Your task to perform on an android device: Go to notification settings Image 0: 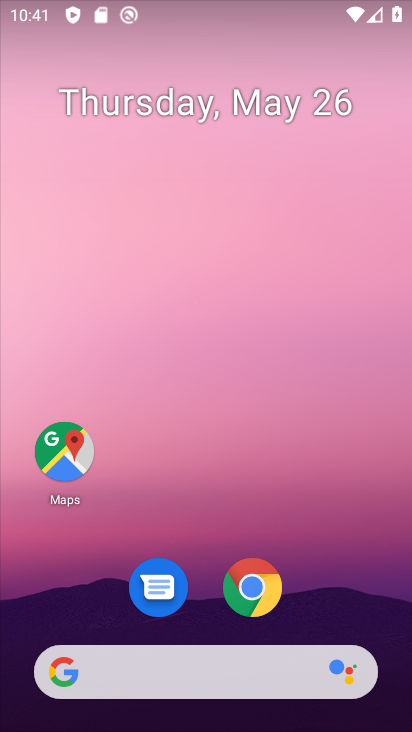
Step 0: drag from (259, 725) to (241, 121)
Your task to perform on an android device: Go to notification settings Image 1: 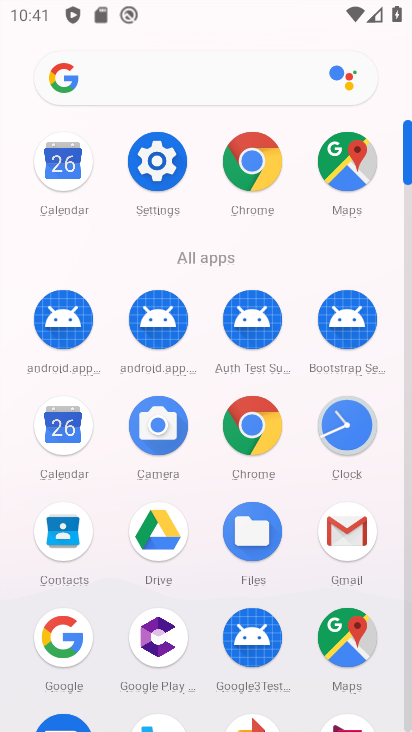
Step 1: click (175, 170)
Your task to perform on an android device: Go to notification settings Image 2: 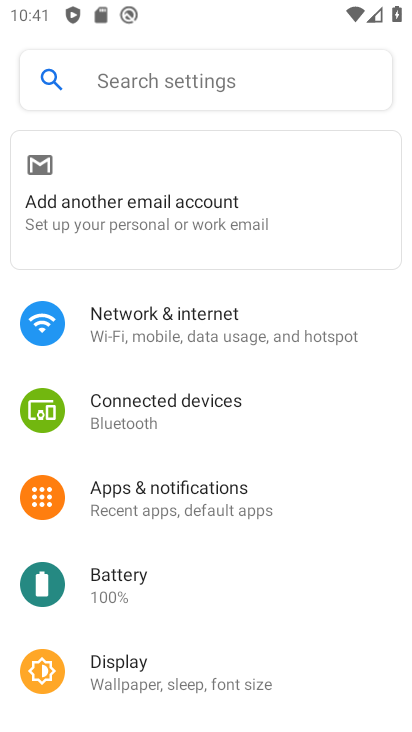
Step 2: click (185, 82)
Your task to perform on an android device: Go to notification settings Image 3: 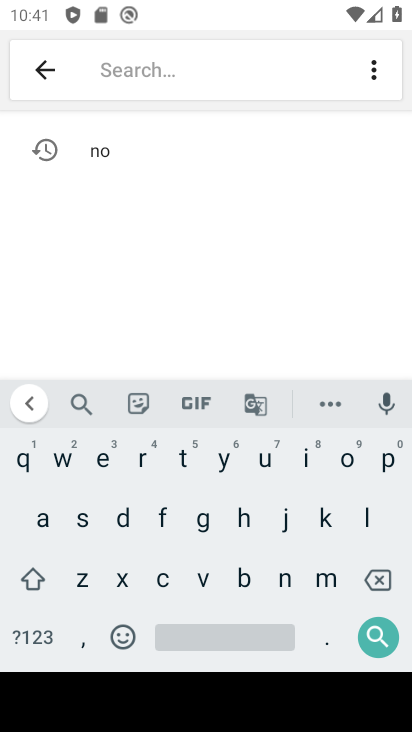
Step 3: click (150, 154)
Your task to perform on an android device: Go to notification settings Image 4: 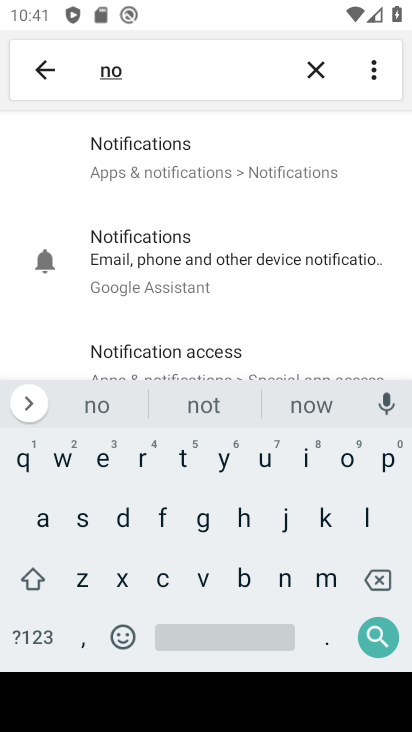
Step 4: click (147, 156)
Your task to perform on an android device: Go to notification settings Image 5: 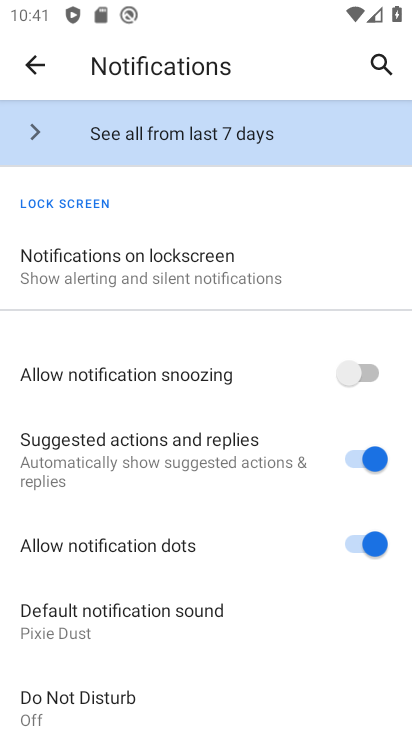
Step 5: click (153, 257)
Your task to perform on an android device: Go to notification settings Image 6: 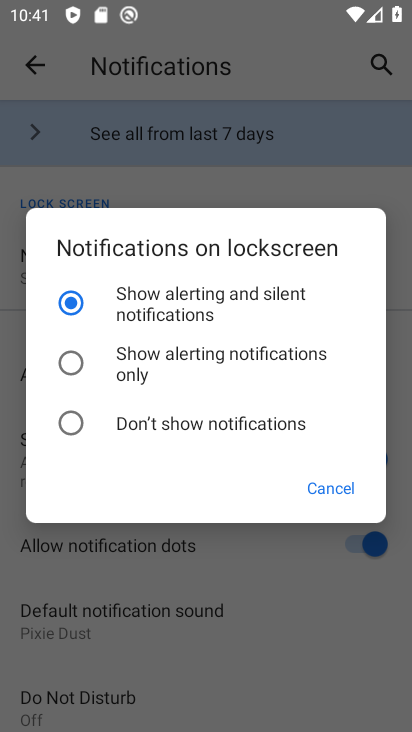
Step 6: task complete